Your task to perform on an android device: Is it going to rain today? Image 0: 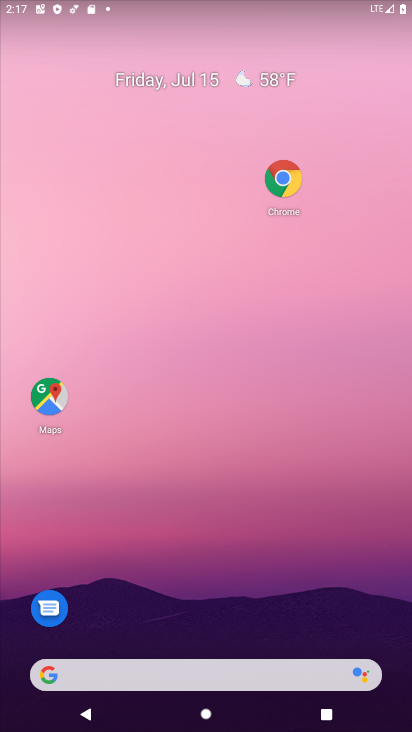
Step 0: drag from (200, 619) to (166, 111)
Your task to perform on an android device: Is it going to rain today? Image 1: 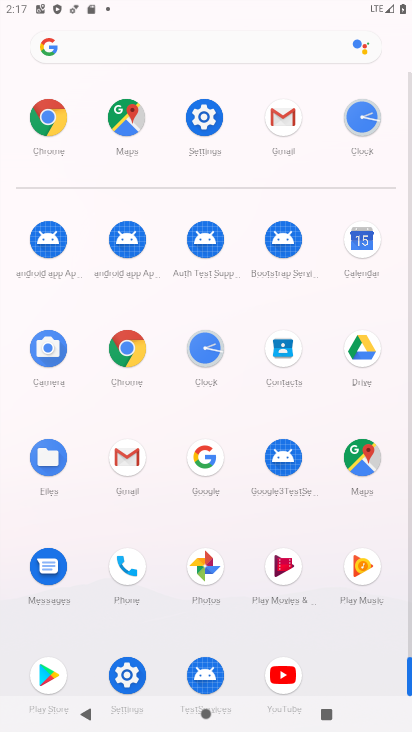
Step 1: click (115, 360)
Your task to perform on an android device: Is it going to rain today? Image 2: 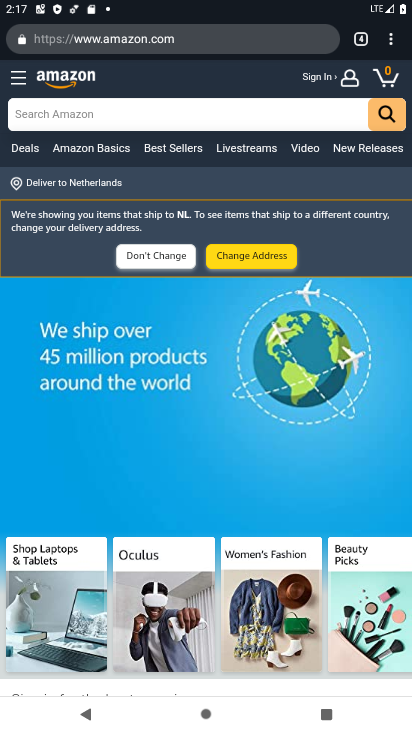
Step 2: click (207, 41)
Your task to perform on an android device: Is it going to rain today? Image 3: 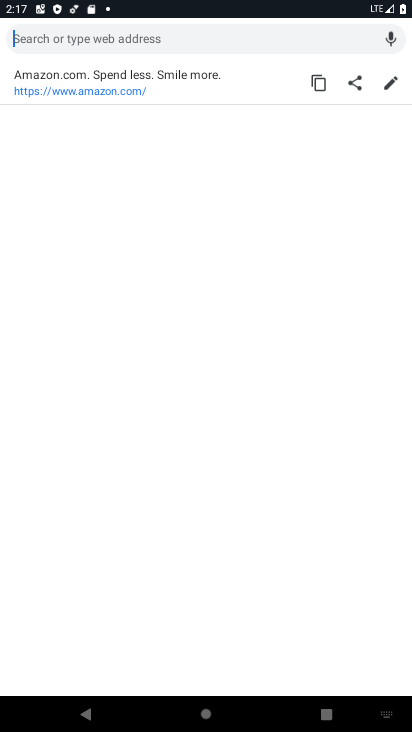
Step 3: type "Is it going to rain today?"
Your task to perform on an android device: Is it going to rain today? Image 4: 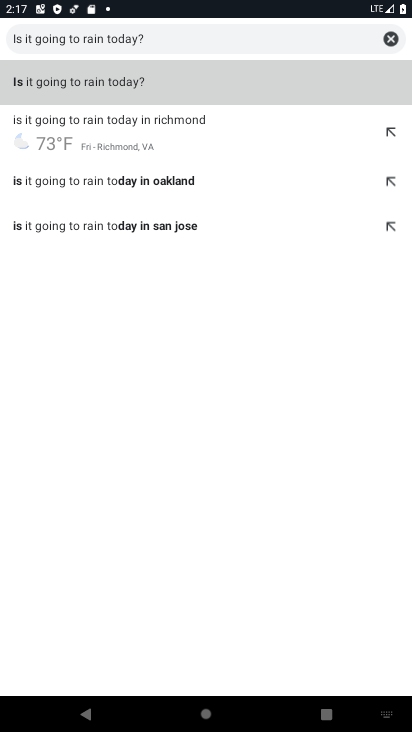
Step 4: click (120, 85)
Your task to perform on an android device: Is it going to rain today? Image 5: 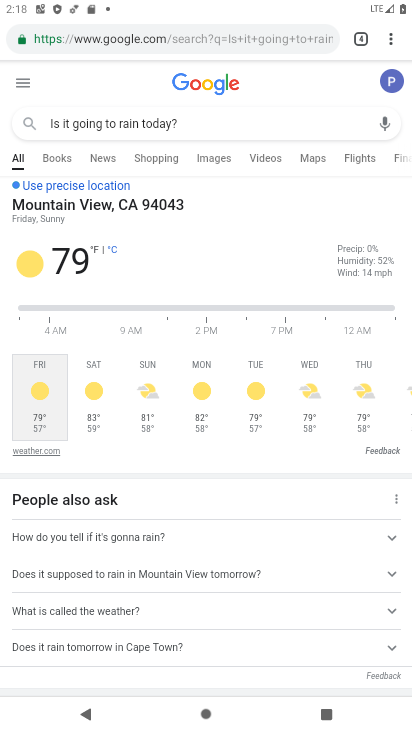
Step 5: task complete